Your task to perform on an android device: Add "macbook pro" to the cart on newegg.com Image 0: 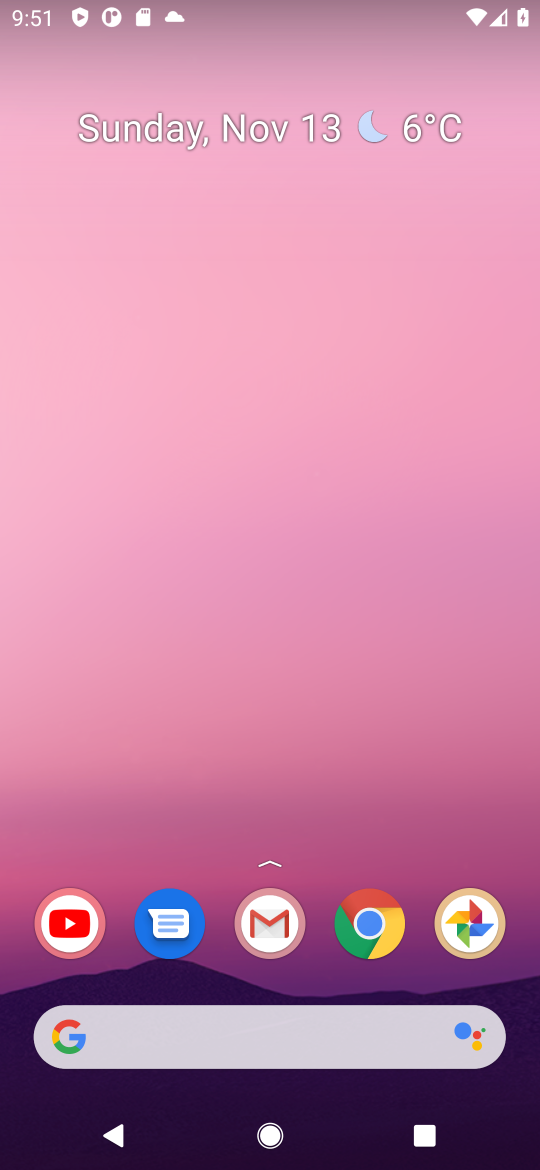
Step 0: click (357, 941)
Your task to perform on an android device: Add "macbook pro" to the cart on newegg.com Image 1: 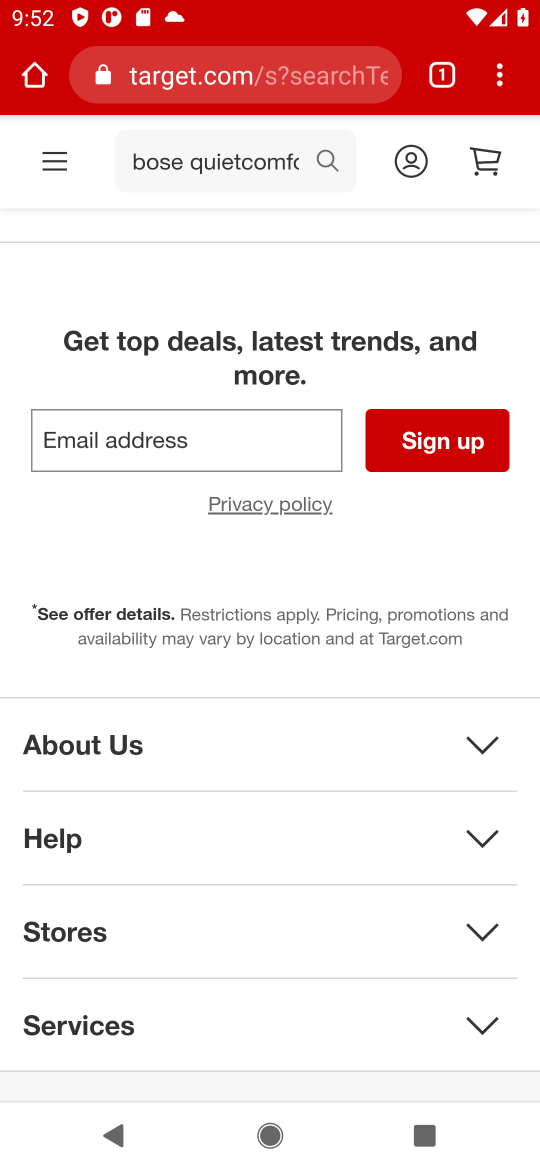
Step 1: click (210, 62)
Your task to perform on an android device: Add "macbook pro" to the cart on newegg.com Image 2: 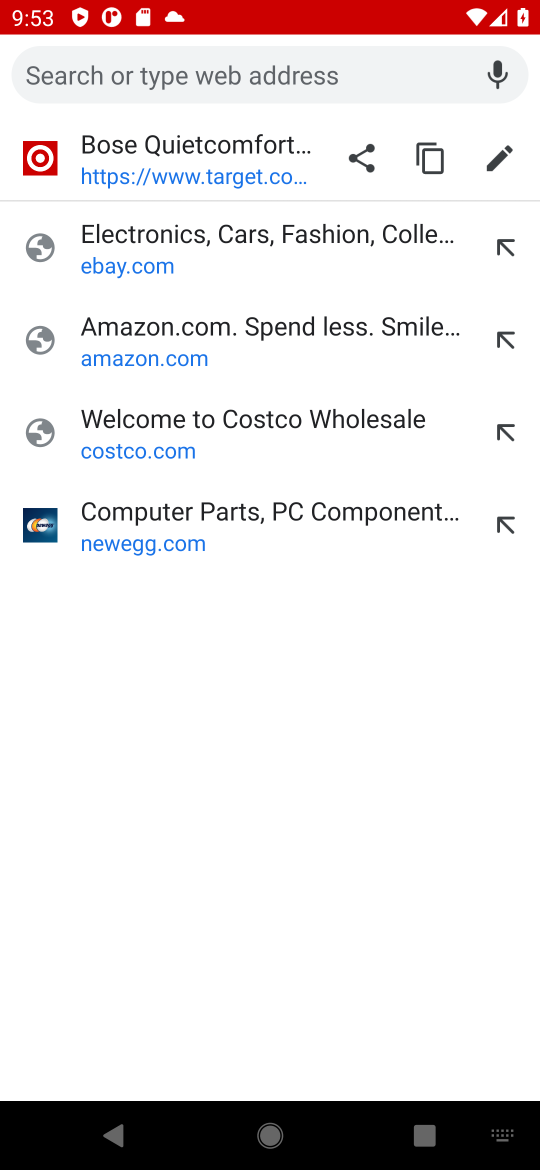
Step 2: click (201, 516)
Your task to perform on an android device: Add "macbook pro" to the cart on newegg.com Image 3: 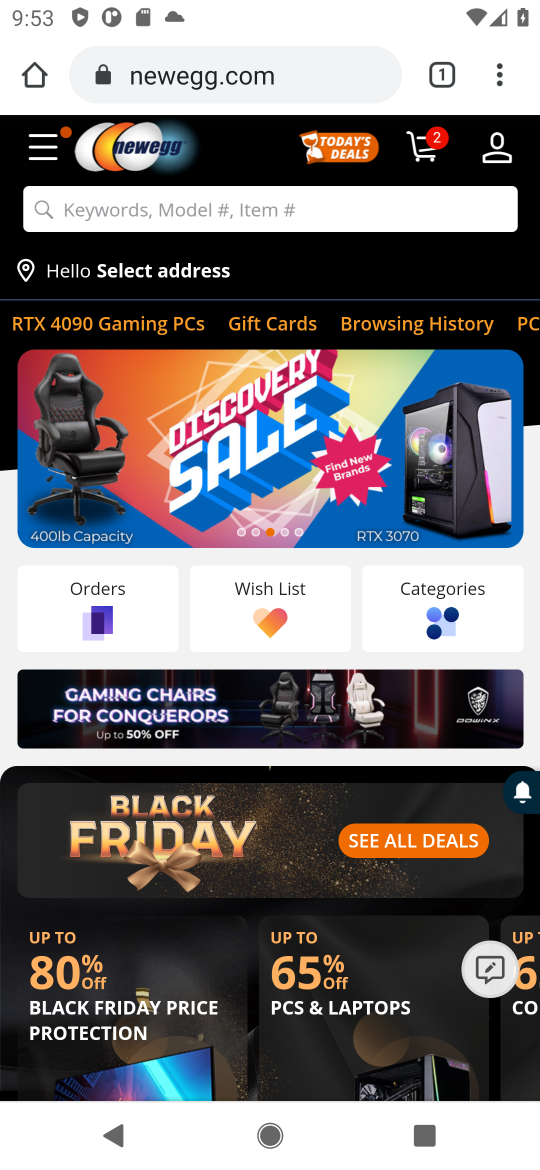
Step 3: click (372, 209)
Your task to perform on an android device: Add "macbook pro" to the cart on newegg.com Image 4: 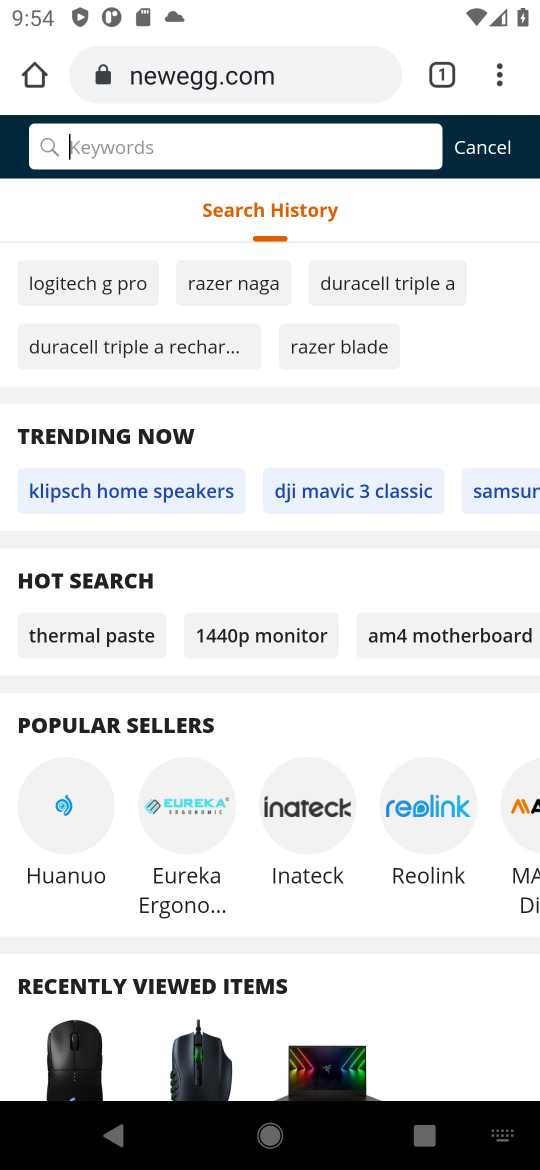
Step 4: type "macbook pro"
Your task to perform on an android device: Add "macbook pro" to the cart on newegg.com Image 5: 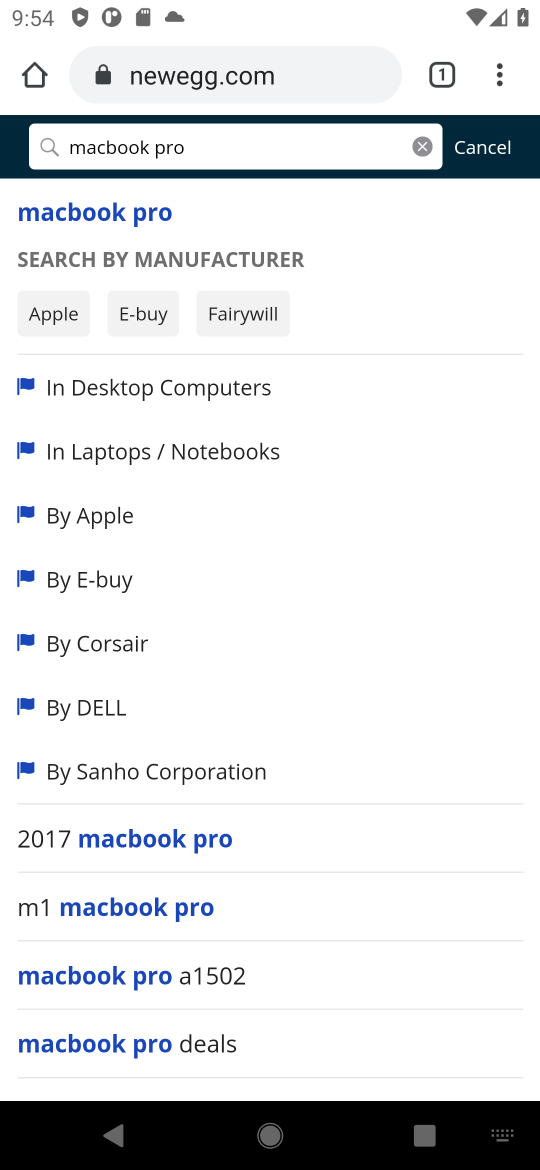
Step 5: drag from (311, 972) to (334, 782)
Your task to perform on an android device: Add "macbook pro" to the cart on newegg.com Image 6: 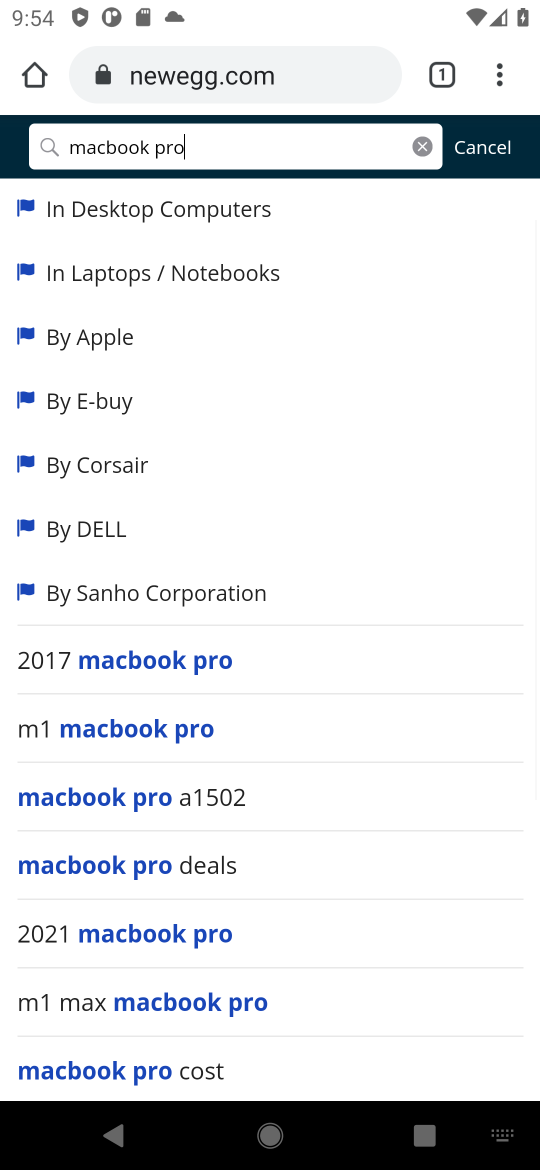
Step 6: drag from (332, 528) to (382, 899)
Your task to perform on an android device: Add "macbook pro" to the cart on newegg.com Image 7: 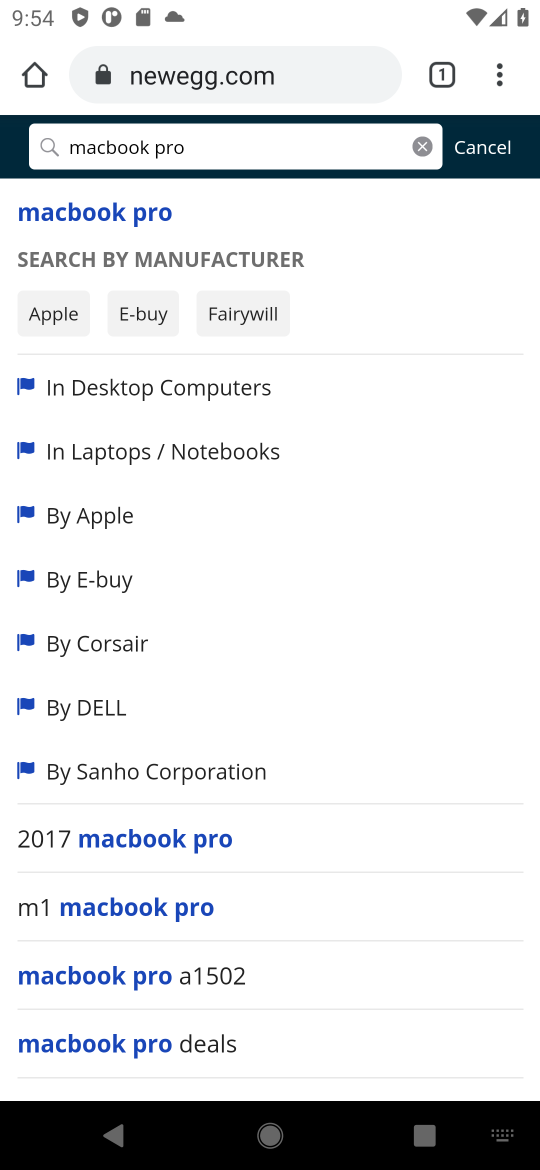
Step 7: click (161, 208)
Your task to perform on an android device: Add "macbook pro" to the cart on newegg.com Image 8: 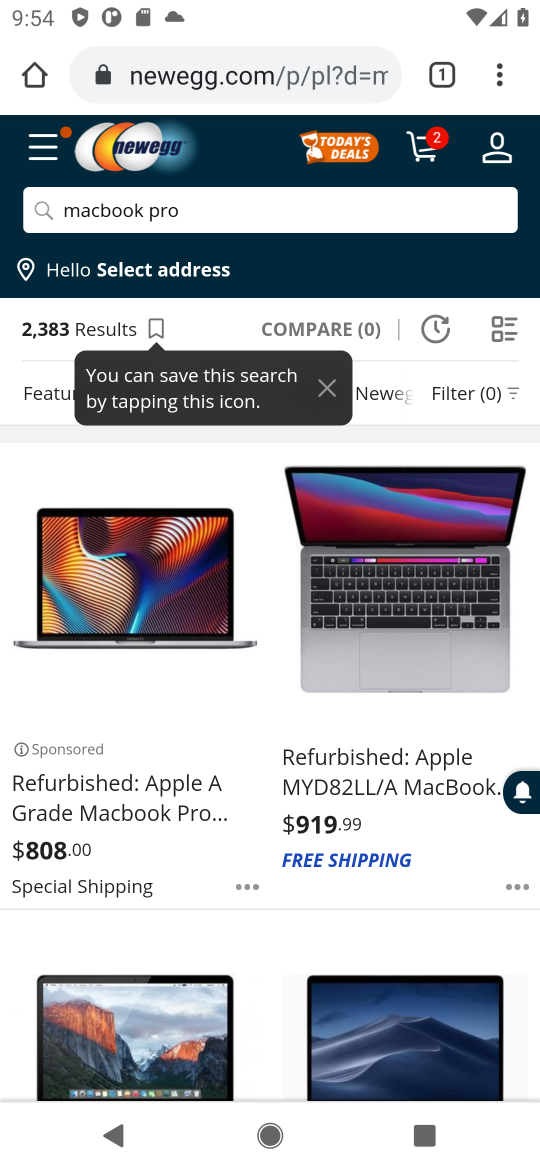
Step 8: drag from (429, 937) to (405, 681)
Your task to perform on an android device: Add "macbook pro" to the cart on newegg.com Image 9: 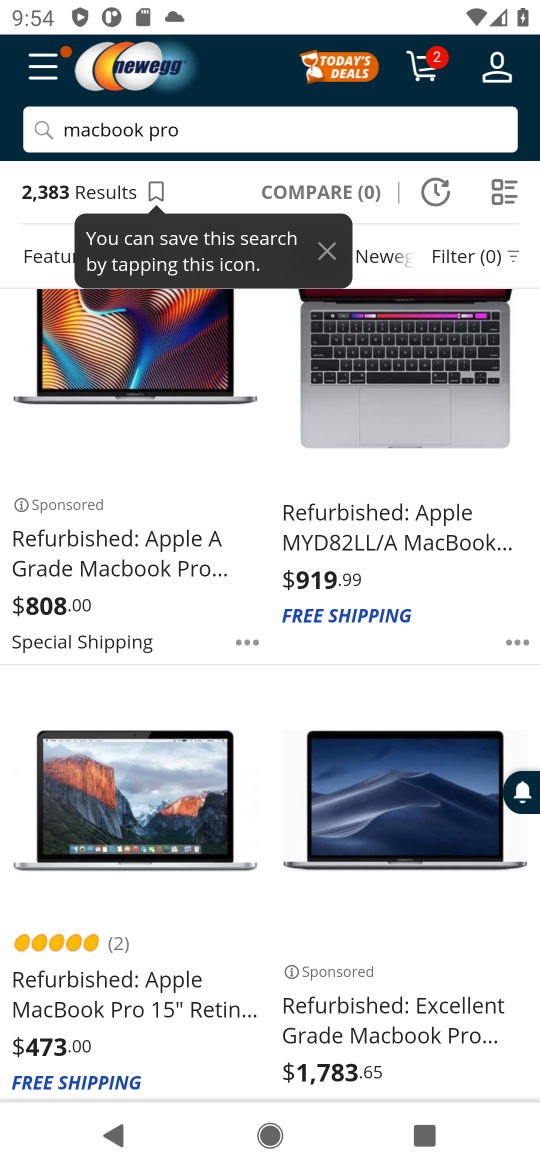
Step 9: drag from (437, 950) to (444, 548)
Your task to perform on an android device: Add "macbook pro" to the cart on newegg.com Image 10: 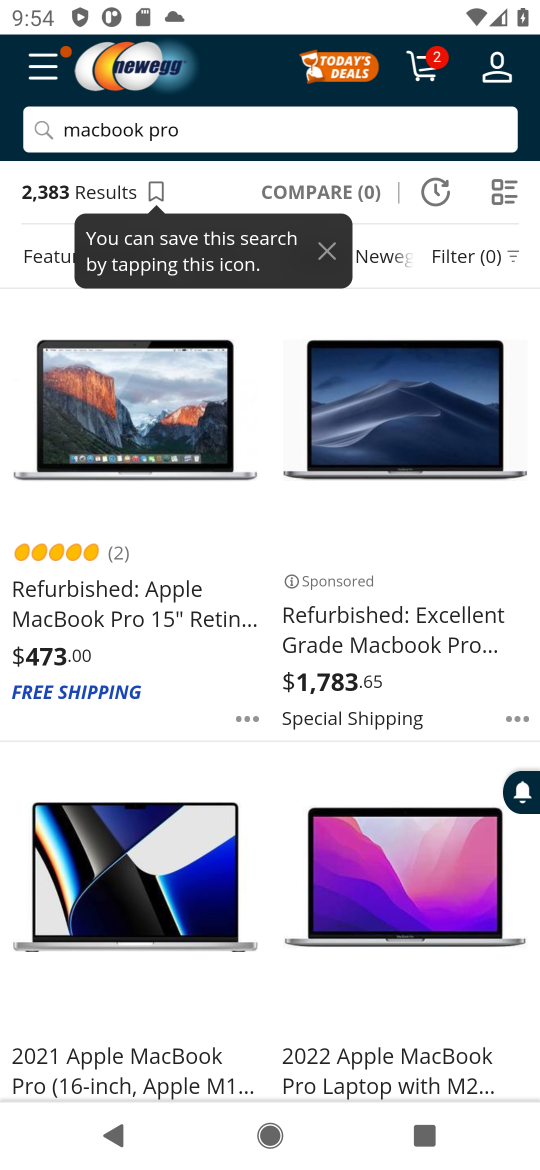
Step 10: drag from (387, 935) to (417, 620)
Your task to perform on an android device: Add "macbook pro" to the cart on newegg.com Image 11: 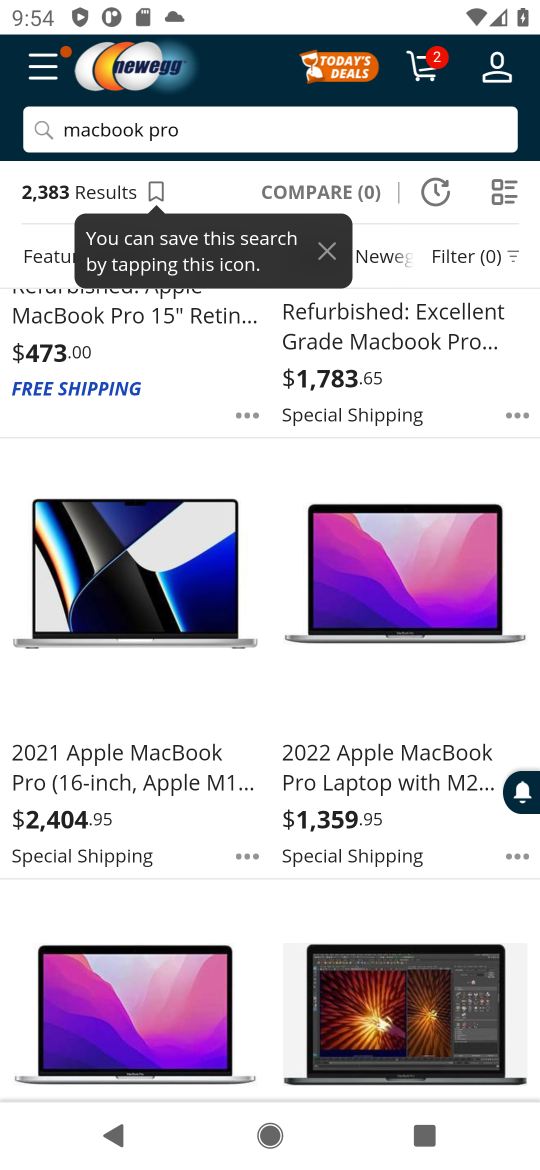
Step 11: click (139, 570)
Your task to perform on an android device: Add "macbook pro" to the cart on newegg.com Image 12: 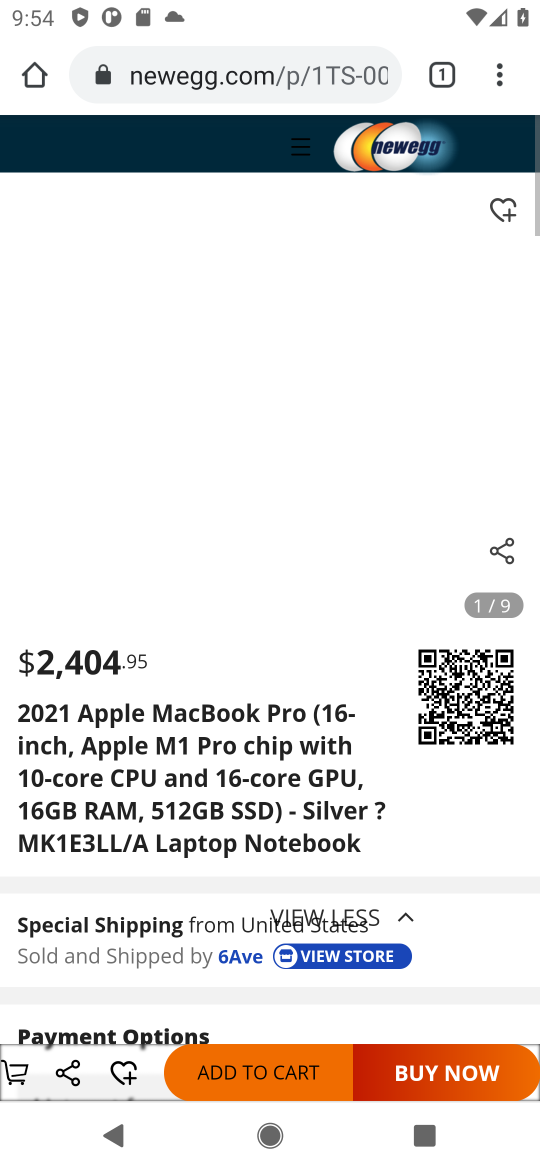
Step 12: drag from (442, 877) to (437, 622)
Your task to perform on an android device: Add "macbook pro" to the cart on newegg.com Image 13: 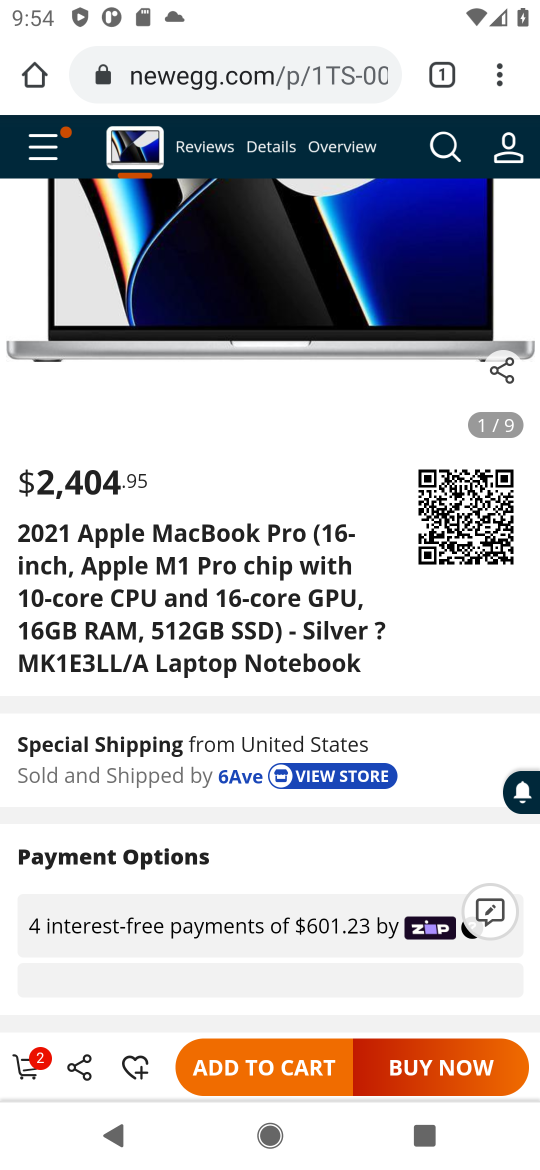
Step 13: click (254, 1066)
Your task to perform on an android device: Add "macbook pro" to the cart on newegg.com Image 14: 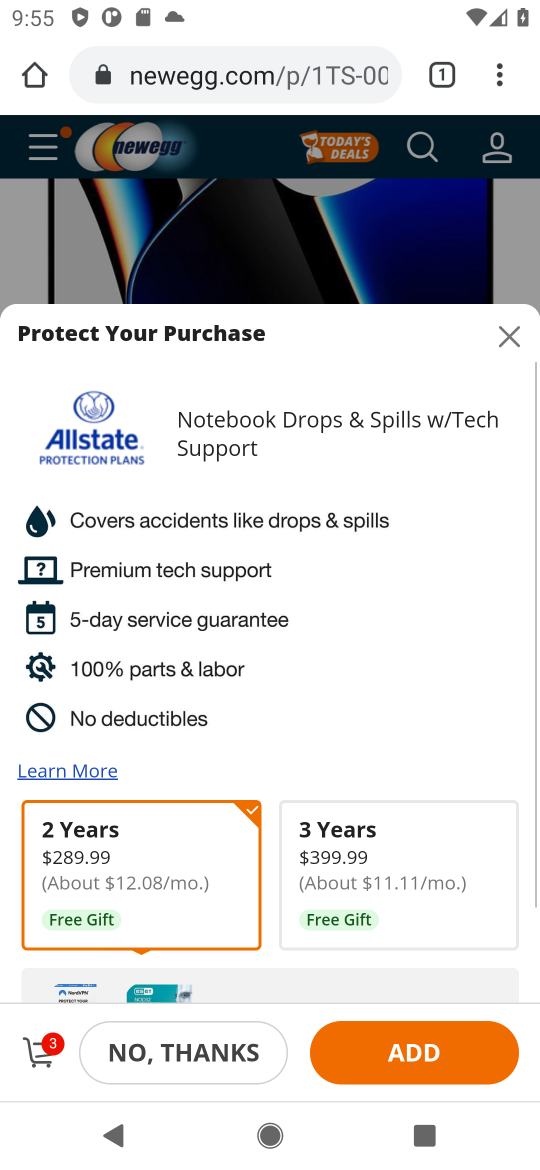
Step 14: task complete